Your task to perform on an android device: Go to privacy settings Image 0: 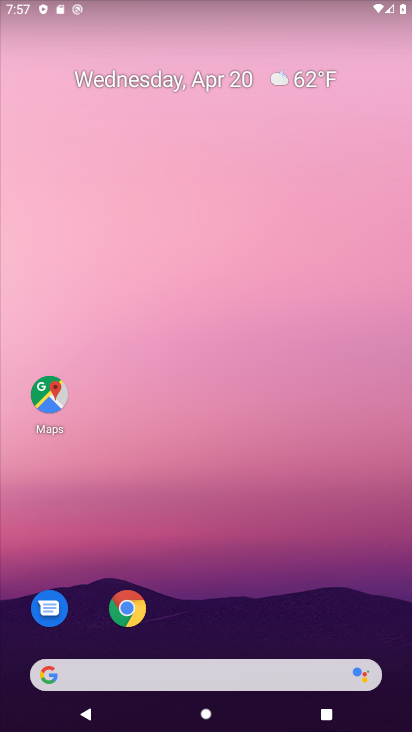
Step 0: drag from (254, 597) to (277, 139)
Your task to perform on an android device: Go to privacy settings Image 1: 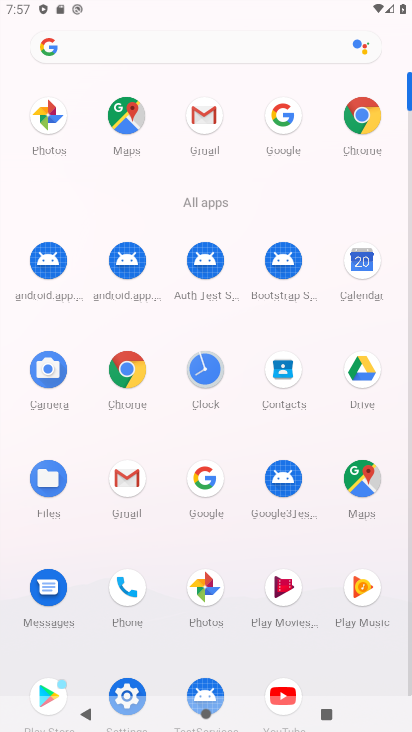
Step 1: drag from (228, 636) to (253, 341)
Your task to perform on an android device: Go to privacy settings Image 2: 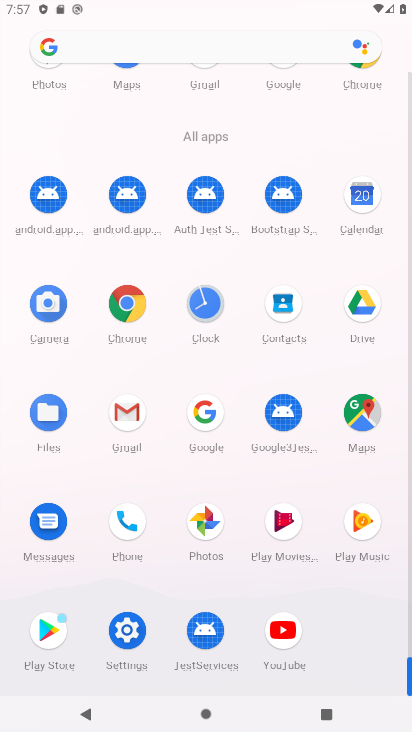
Step 2: click (116, 623)
Your task to perform on an android device: Go to privacy settings Image 3: 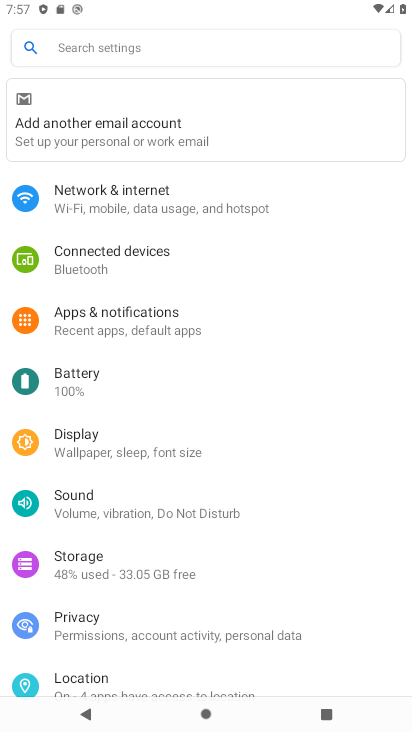
Step 3: drag from (206, 603) to (275, 241)
Your task to perform on an android device: Go to privacy settings Image 4: 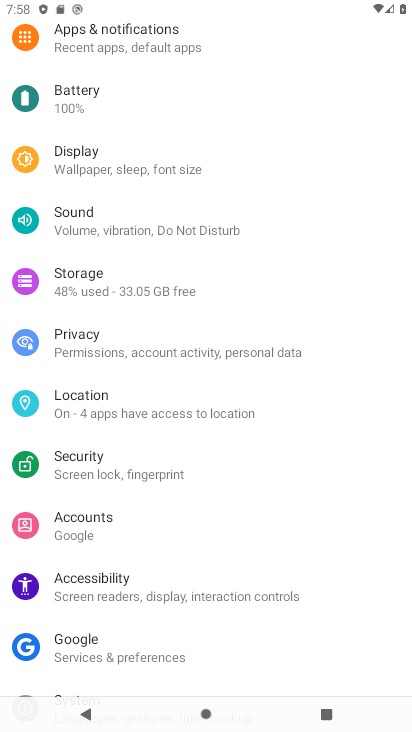
Step 4: click (155, 352)
Your task to perform on an android device: Go to privacy settings Image 5: 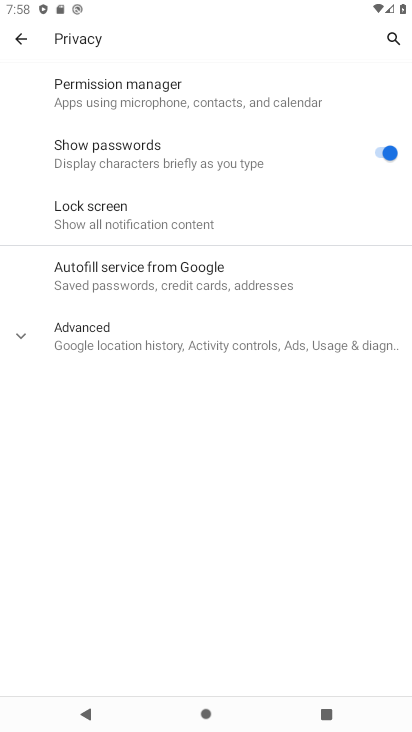
Step 5: task complete